Your task to perform on an android device: open app "Roku - Official Remote Control" (install if not already installed) and go to login screen Image 0: 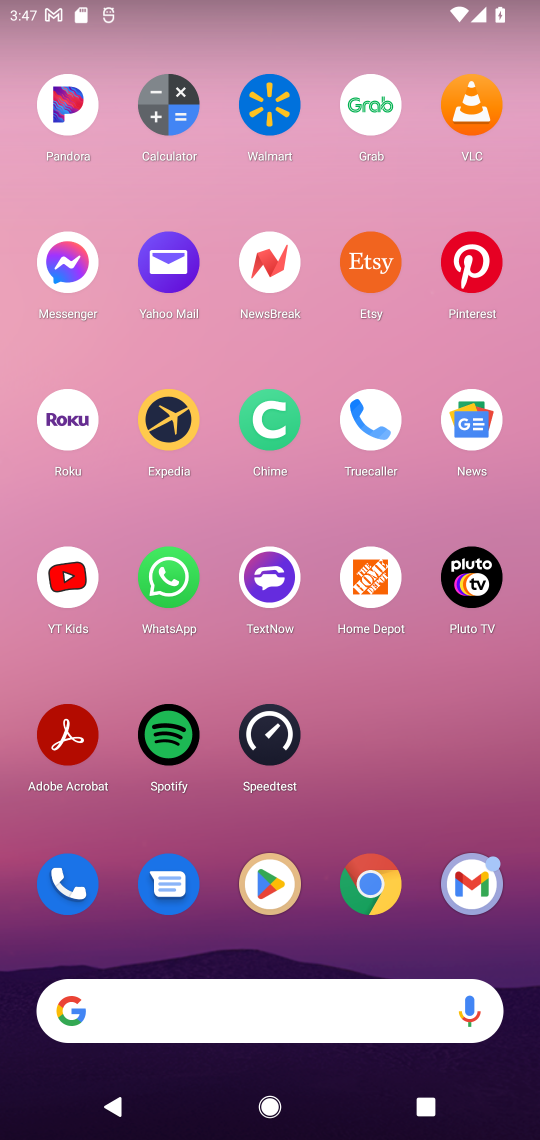
Step 0: click (271, 877)
Your task to perform on an android device: open app "Roku - Official Remote Control" (install if not already installed) and go to login screen Image 1: 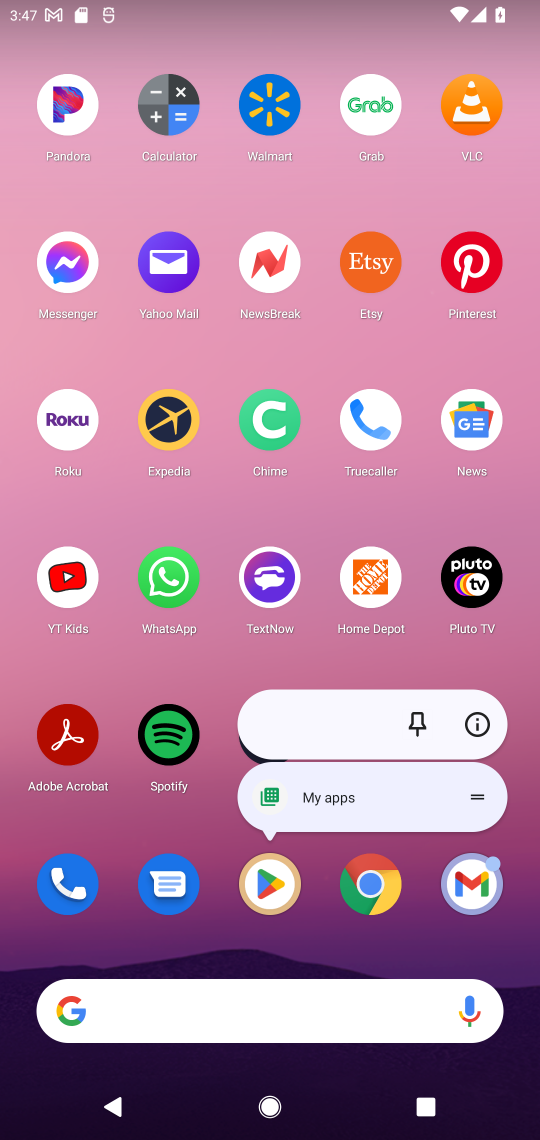
Step 1: click (267, 888)
Your task to perform on an android device: open app "Roku - Official Remote Control" (install if not already installed) and go to login screen Image 2: 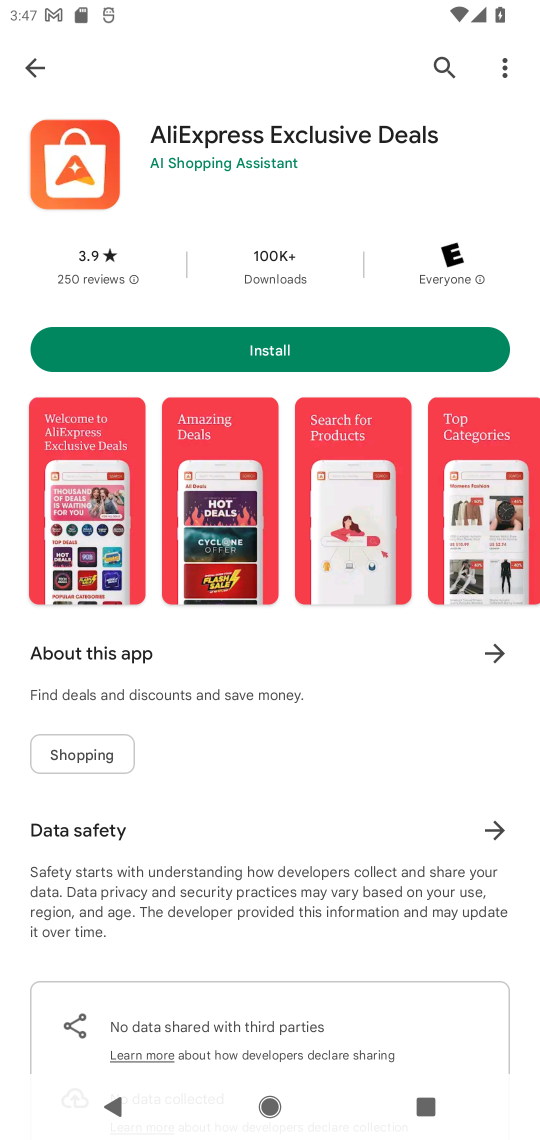
Step 2: click (34, 57)
Your task to perform on an android device: open app "Roku - Official Remote Control" (install if not already installed) and go to login screen Image 3: 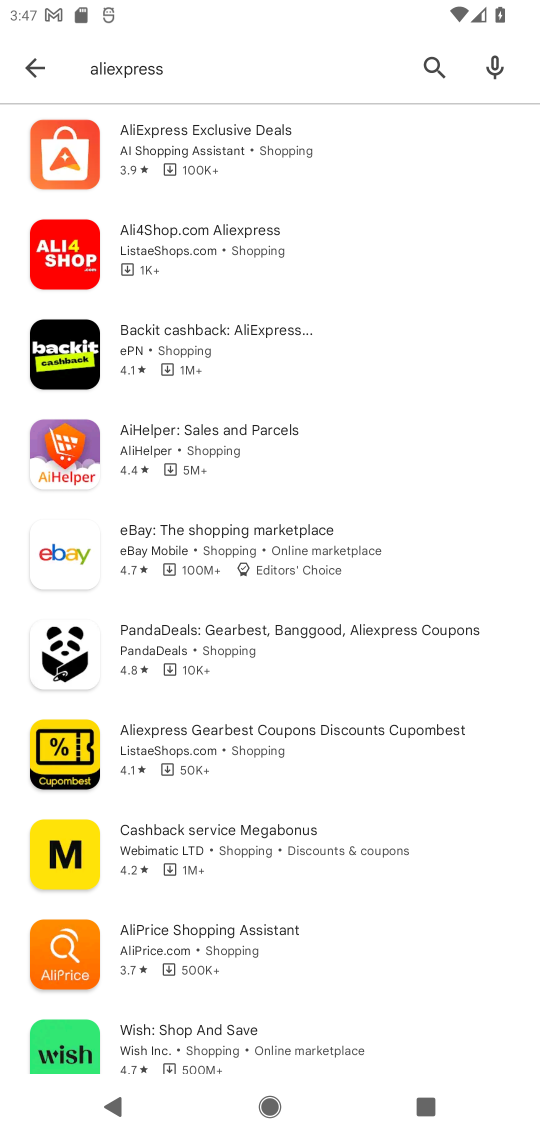
Step 3: click (210, 68)
Your task to perform on an android device: open app "Roku - Official Remote Control" (install if not already installed) and go to login screen Image 4: 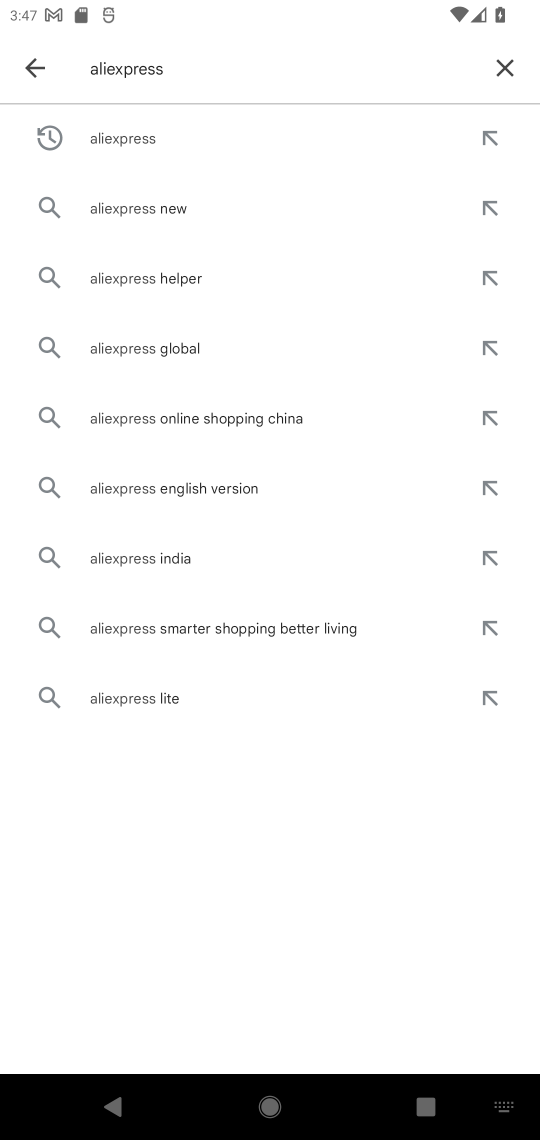
Step 4: type "Roku"
Your task to perform on an android device: open app "Roku - Official Remote Control" (install if not already installed) and go to login screen Image 5: 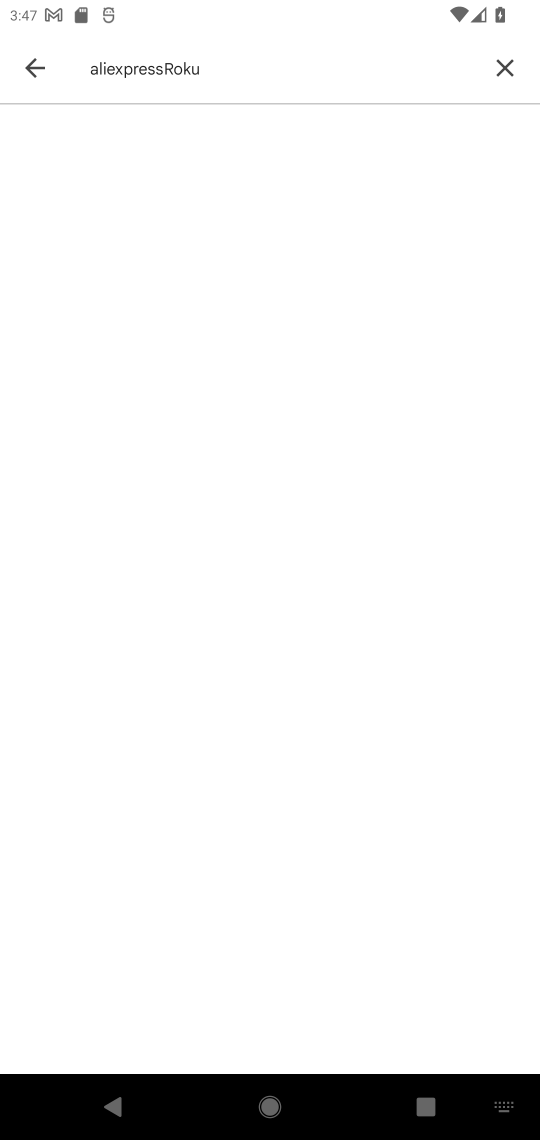
Step 5: click (493, 56)
Your task to perform on an android device: open app "Roku - Official Remote Control" (install if not already installed) and go to login screen Image 6: 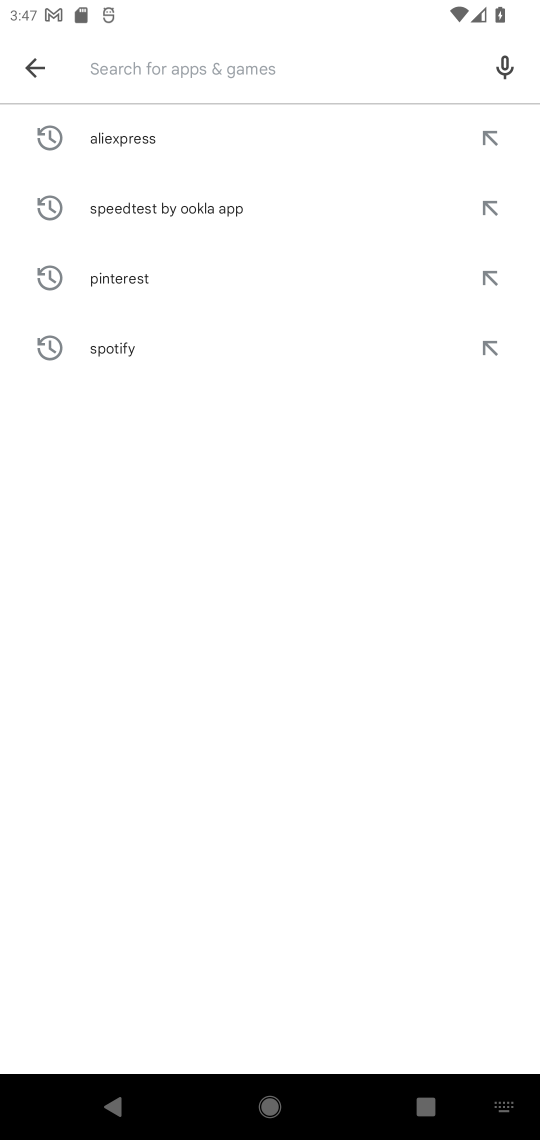
Step 6: type "Roku"
Your task to perform on an android device: open app "Roku - Official Remote Control" (install if not already installed) and go to login screen Image 7: 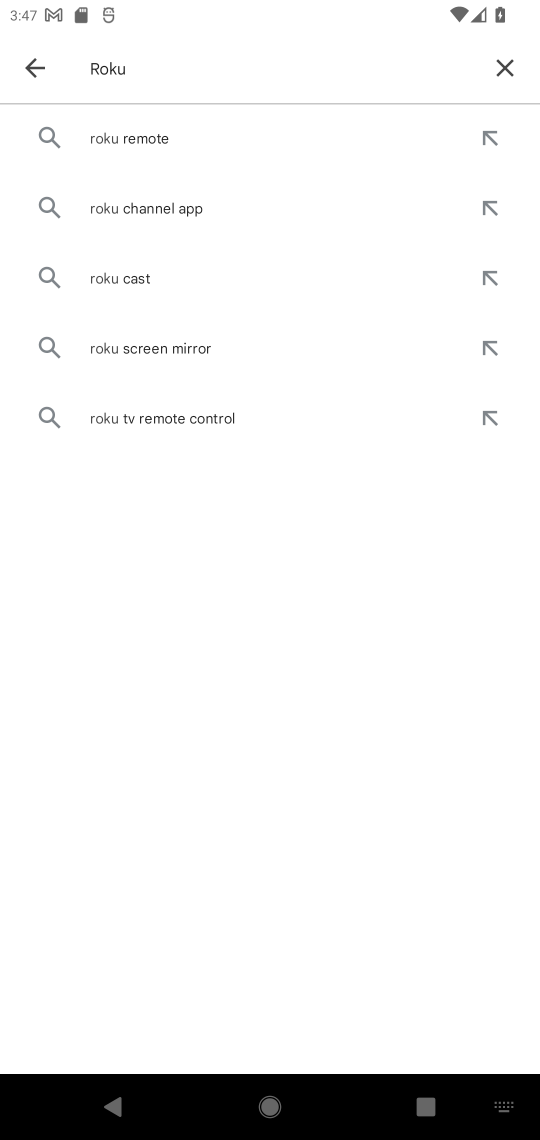
Step 7: click (145, 146)
Your task to perform on an android device: open app "Roku - Official Remote Control" (install if not already installed) and go to login screen Image 8: 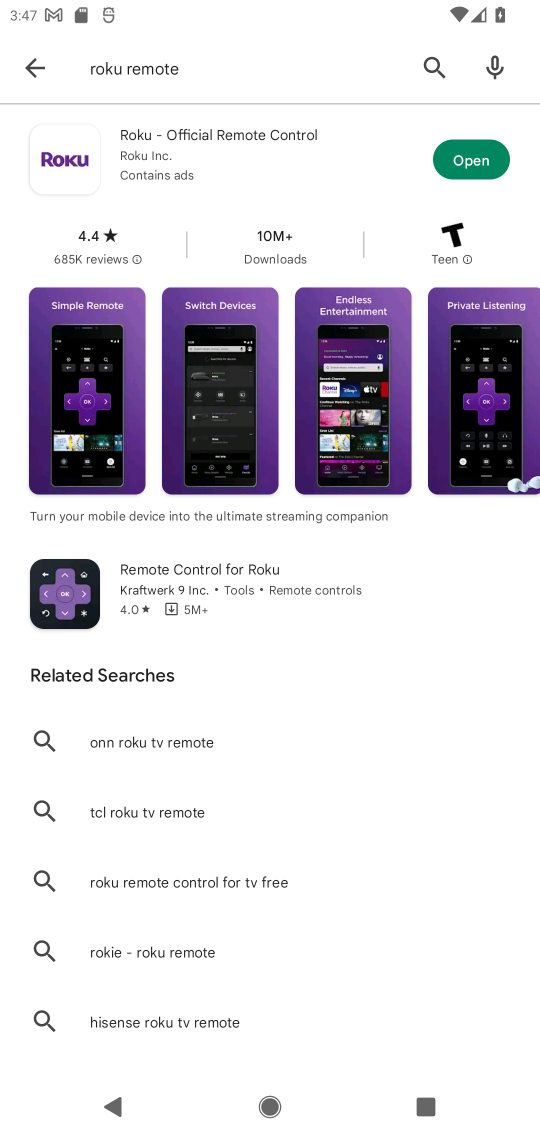
Step 8: click (459, 144)
Your task to perform on an android device: open app "Roku - Official Remote Control" (install if not already installed) and go to login screen Image 9: 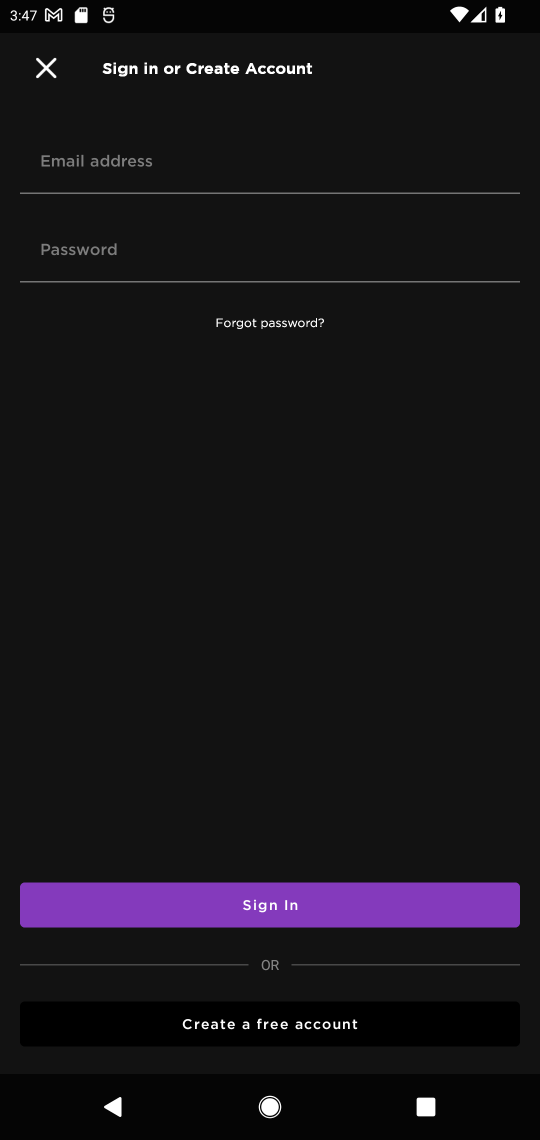
Step 9: task complete